Your task to perform on an android device: create a new album in the google photos Image 0: 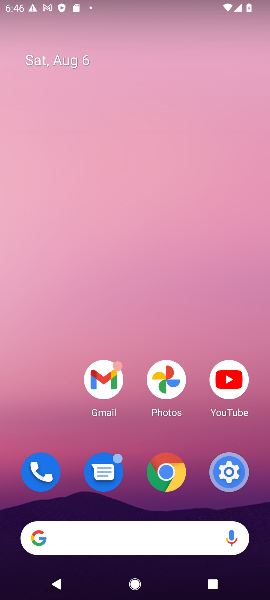
Step 0: click (166, 379)
Your task to perform on an android device: create a new album in the google photos Image 1: 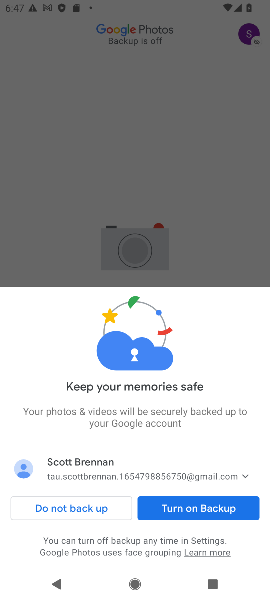
Step 1: click (195, 509)
Your task to perform on an android device: create a new album in the google photos Image 2: 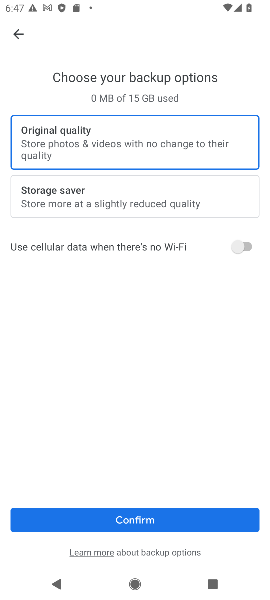
Step 2: click (124, 516)
Your task to perform on an android device: create a new album in the google photos Image 3: 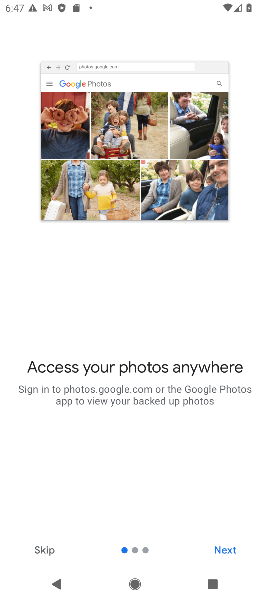
Step 3: click (226, 548)
Your task to perform on an android device: create a new album in the google photos Image 4: 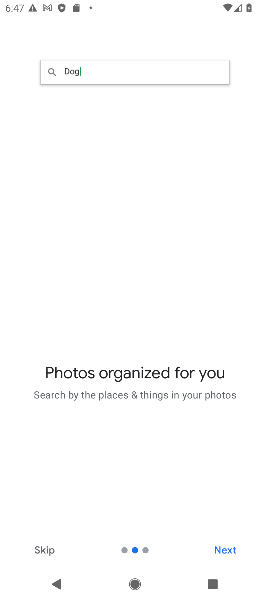
Step 4: click (226, 548)
Your task to perform on an android device: create a new album in the google photos Image 5: 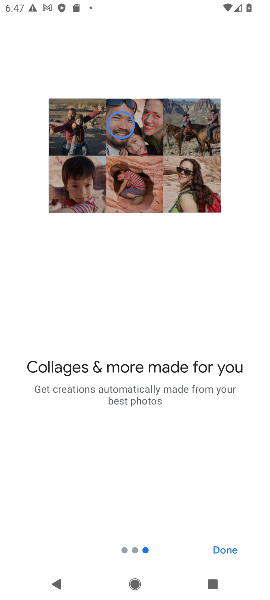
Step 5: click (226, 548)
Your task to perform on an android device: create a new album in the google photos Image 6: 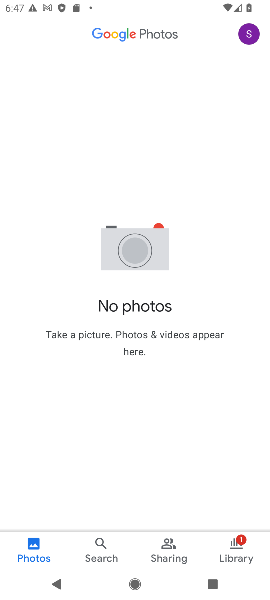
Step 6: click (241, 540)
Your task to perform on an android device: create a new album in the google photos Image 7: 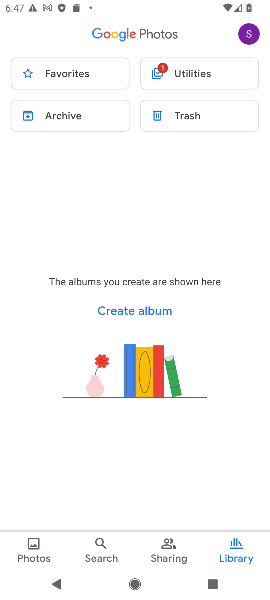
Step 7: click (136, 314)
Your task to perform on an android device: create a new album in the google photos Image 8: 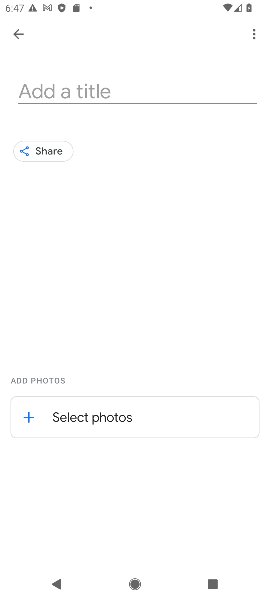
Step 8: click (82, 89)
Your task to perform on an android device: create a new album in the google photos Image 9: 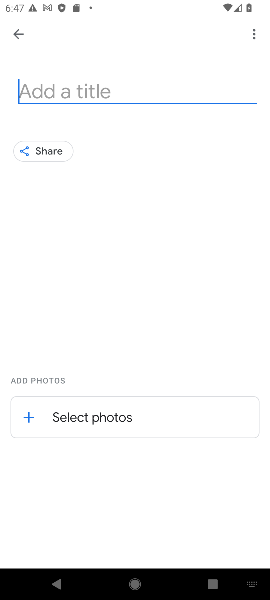
Step 9: type "mccfgdfgd"
Your task to perform on an android device: create a new album in the google photos Image 10: 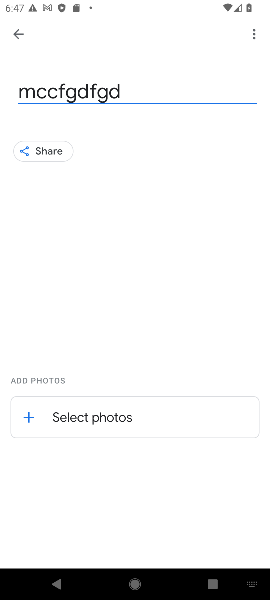
Step 10: click (19, 416)
Your task to perform on an android device: create a new album in the google photos Image 11: 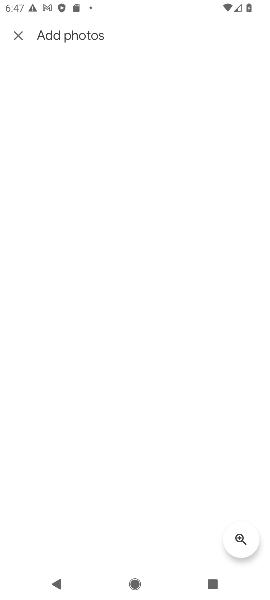
Step 11: task complete